Your task to perform on an android device: toggle priority inbox in the gmail app Image 0: 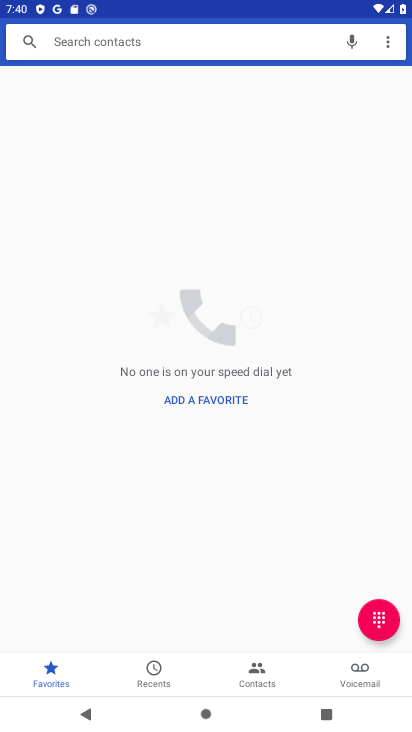
Step 0: press home button
Your task to perform on an android device: toggle priority inbox in the gmail app Image 1: 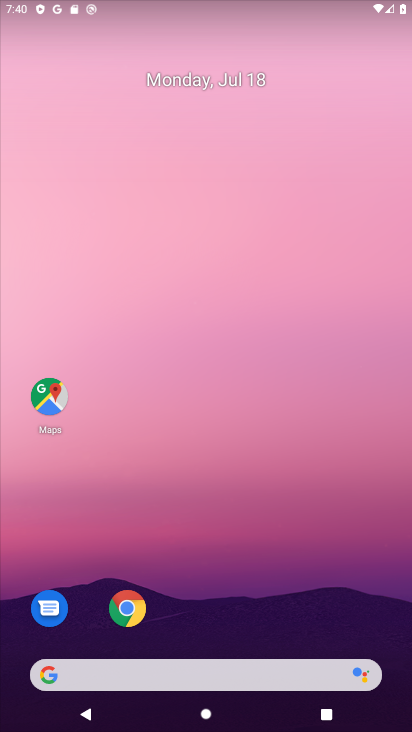
Step 1: drag from (196, 624) to (242, 102)
Your task to perform on an android device: toggle priority inbox in the gmail app Image 2: 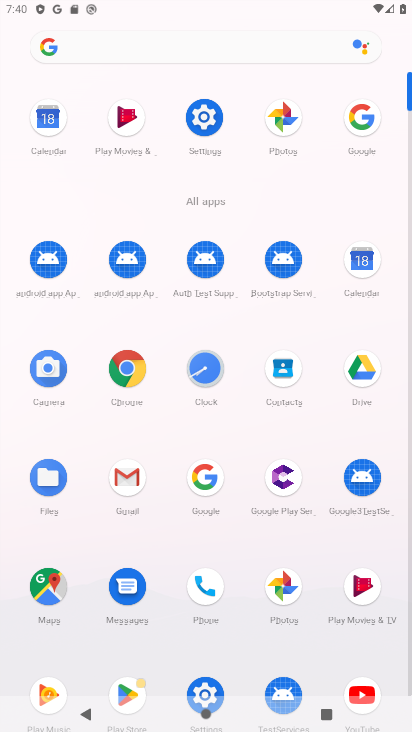
Step 2: click (128, 477)
Your task to perform on an android device: toggle priority inbox in the gmail app Image 3: 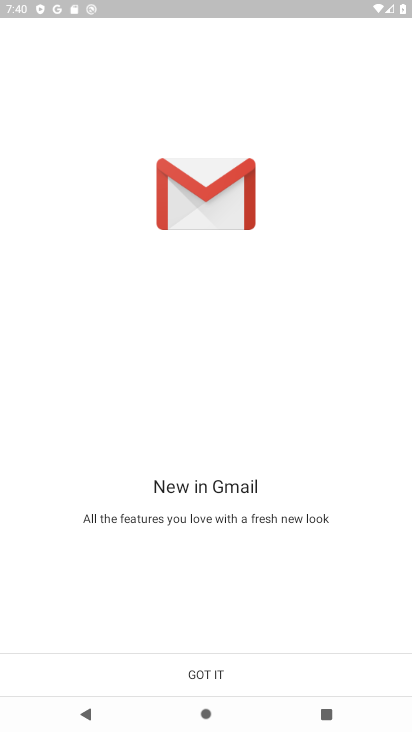
Step 3: click (201, 669)
Your task to perform on an android device: toggle priority inbox in the gmail app Image 4: 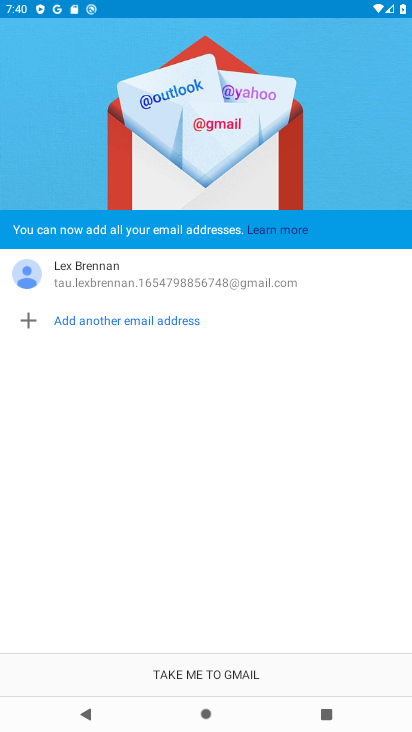
Step 4: click (201, 669)
Your task to perform on an android device: toggle priority inbox in the gmail app Image 5: 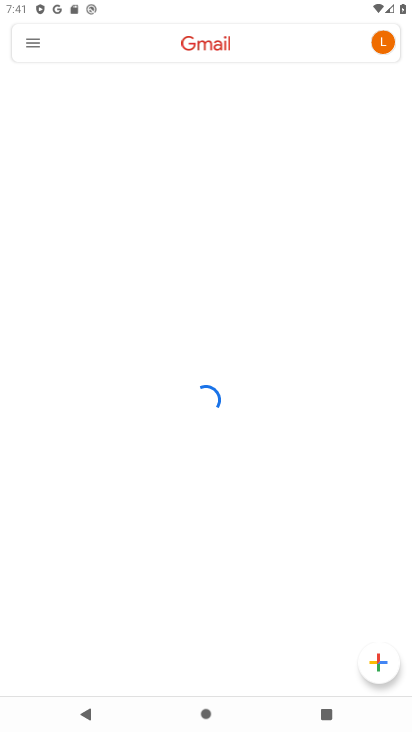
Step 5: click (28, 34)
Your task to perform on an android device: toggle priority inbox in the gmail app Image 6: 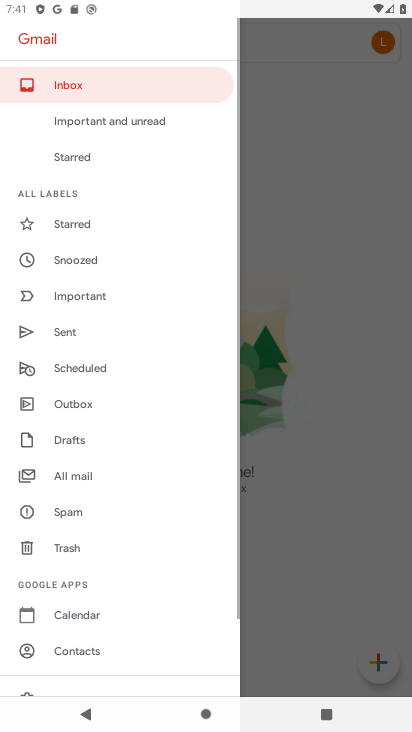
Step 6: click (66, 196)
Your task to perform on an android device: toggle priority inbox in the gmail app Image 7: 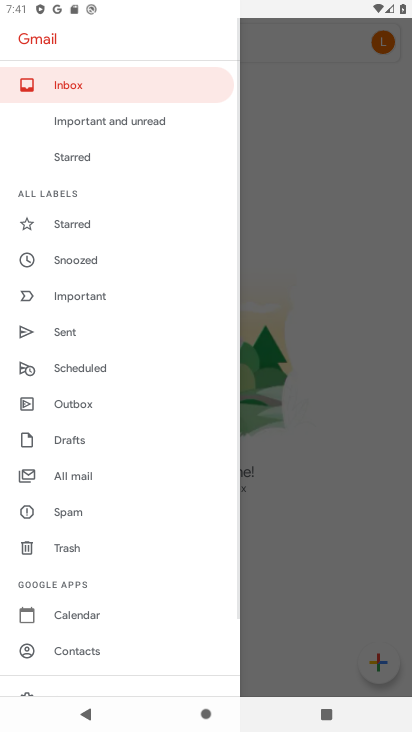
Step 7: drag from (94, 629) to (93, 84)
Your task to perform on an android device: toggle priority inbox in the gmail app Image 8: 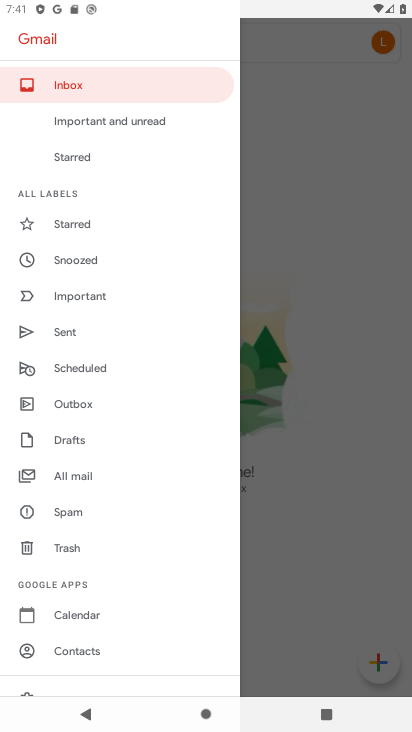
Step 8: drag from (129, 603) to (129, 170)
Your task to perform on an android device: toggle priority inbox in the gmail app Image 9: 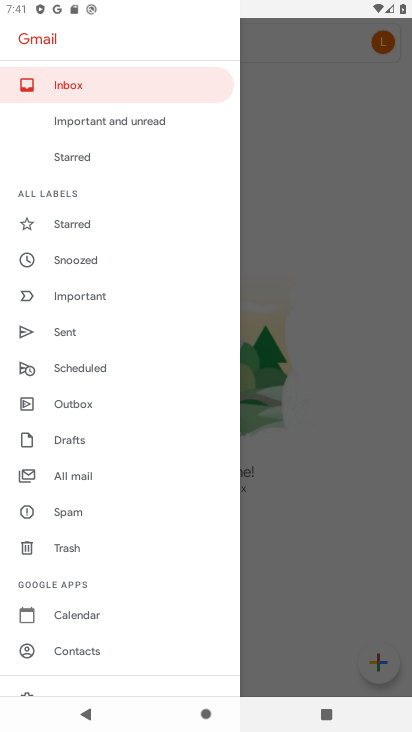
Step 9: drag from (74, 666) to (95, 453)
Your task to perform on an android device: toggle priority inbox in the gmail app Image 10: 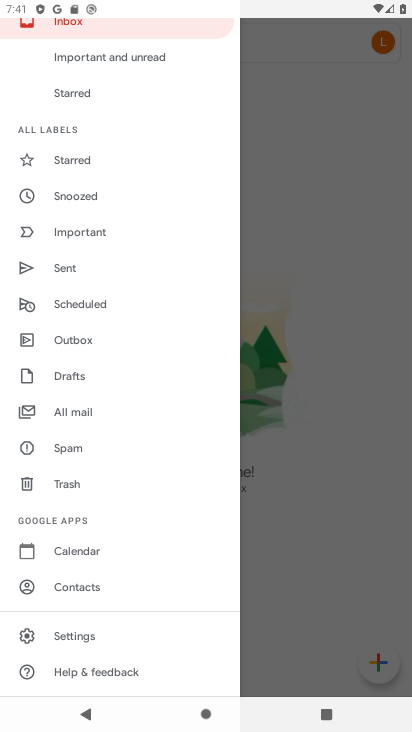
Step 10: click (71, 642)
Your task to perform on an android device: toggle priority inbox in the gmail app Image 11: 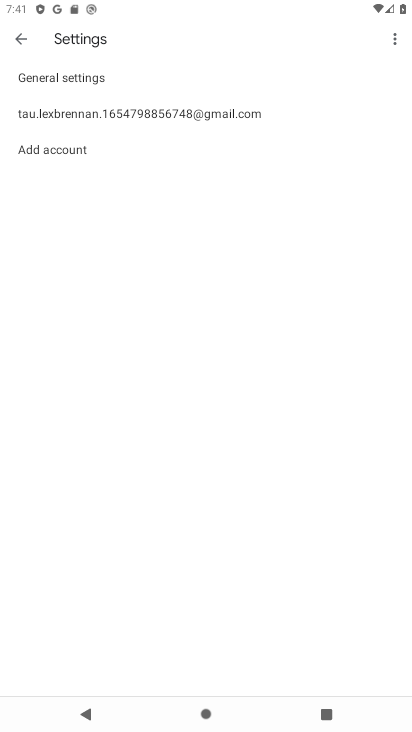
Step 11: click (85, 110)
Your task to perform on an android device: toggle priority inbox in the gmail app Image 12: 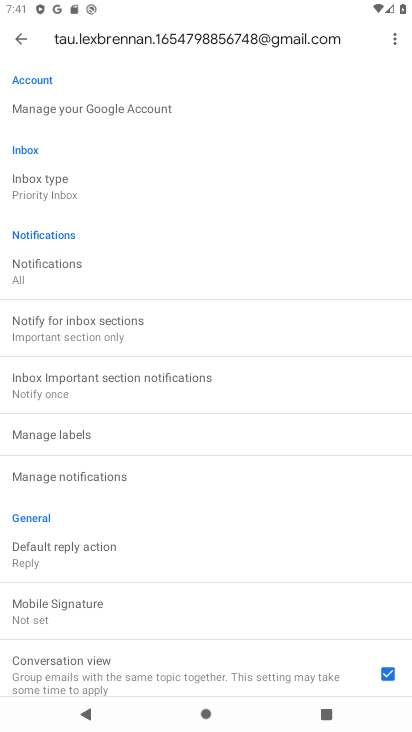
Step 12: click (73, 190)
Your task to perform on an android device: toggle priority inbox in the gmail app Image 13: 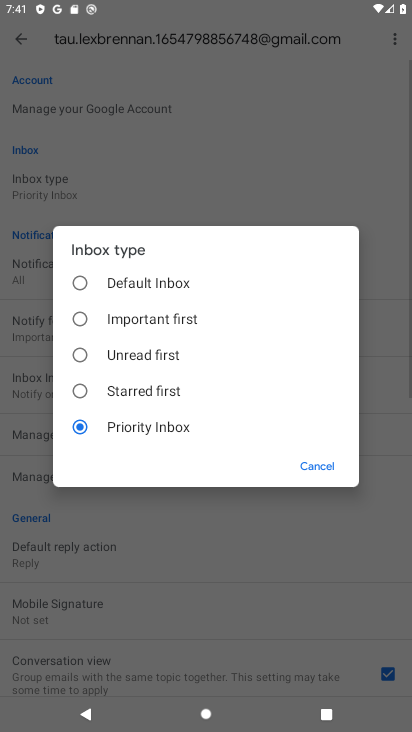
Step 13: click (78, 277)
Your task to perform on an android device: toggle priority inbox in the gmail app Image 14: 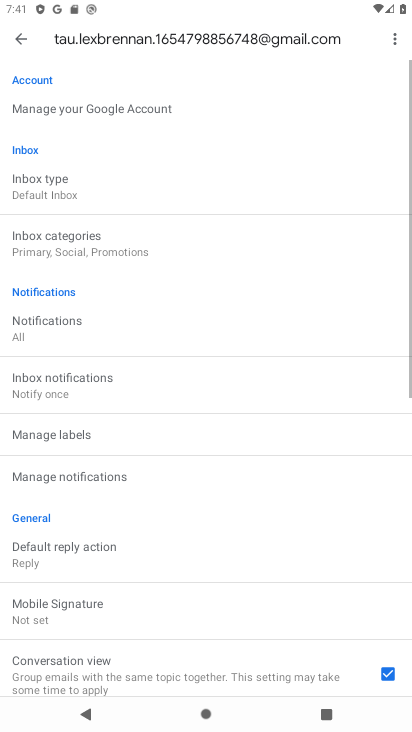
Step 14: task complete